Your task to perform on an android device: turn off smart reply in the gmail app Image 0: 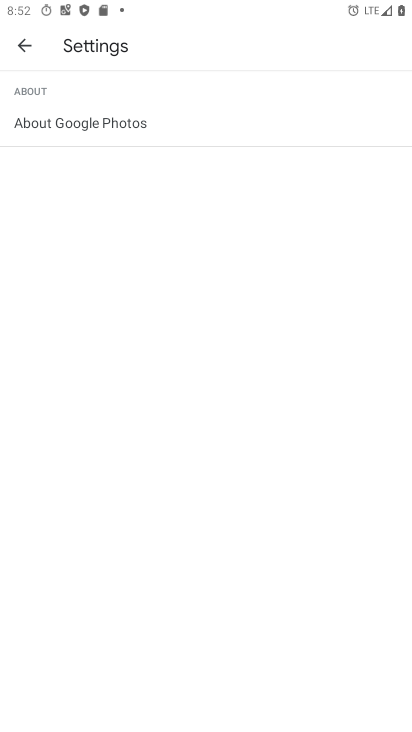
Step 0: press home button
Your task to perform on an android device: turn off smart reply in the gmail app Image 1: 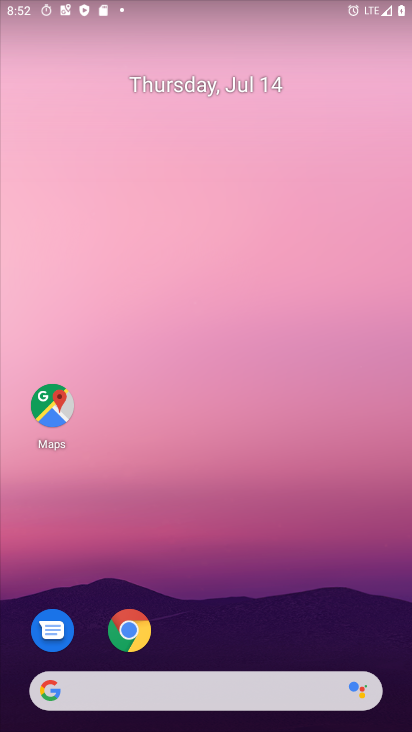
Step 1: drag from (194, 701) to (172, 301)
Your task to perform on an android device: turn off smart reply in the gmail app Image 2: 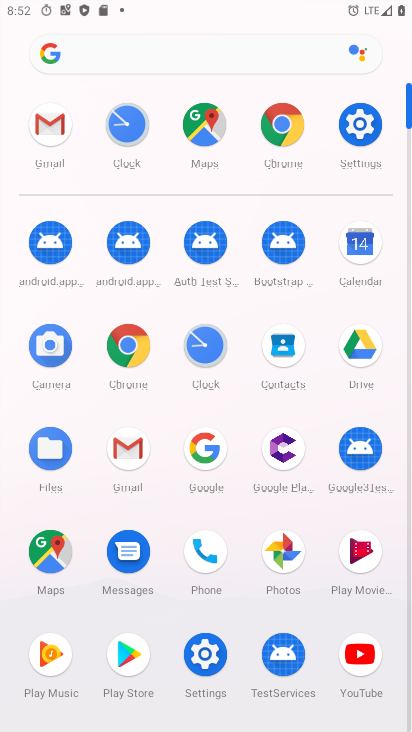
Step 2: click (126, 445)
Your task to perform on an android device: turn off smart reply in the gmail app Image 3: 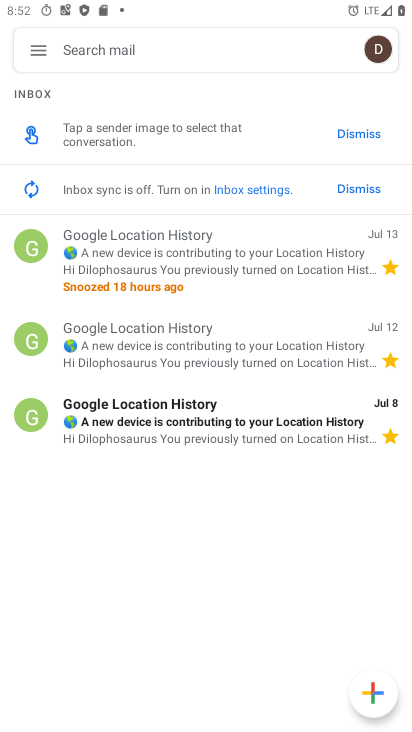
Step 3: click (40, 51)
Your task to perform on an android device: turn off smart reply in the gmail app Image 4: 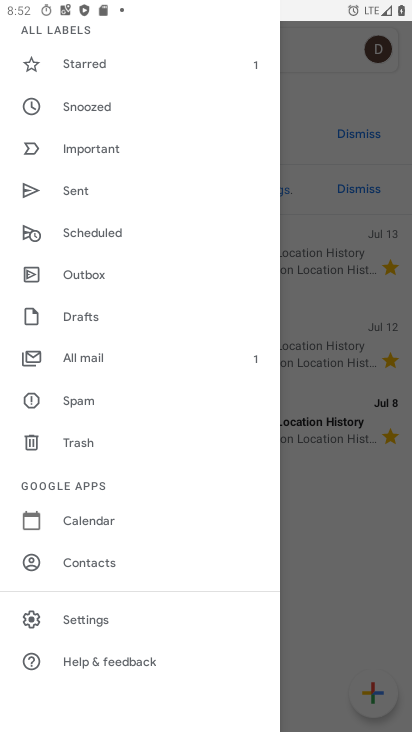
Step 4: click (93, 613)
Your task to perform on an android device: turn off smart reply in the gmail app Image 5: 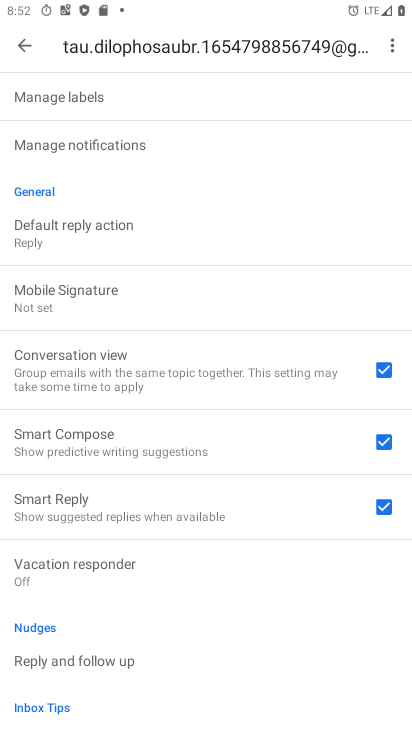
Step 5: click (381, 503)
Your task to perform on an android device: turn off smart reply in the gmail app Image 6: 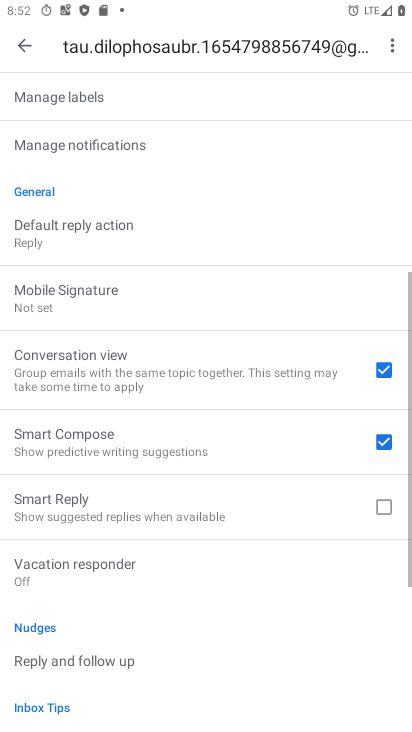
Step 6: task complete